Your task to perform on an android device: Open Yahoo.com Image 0: 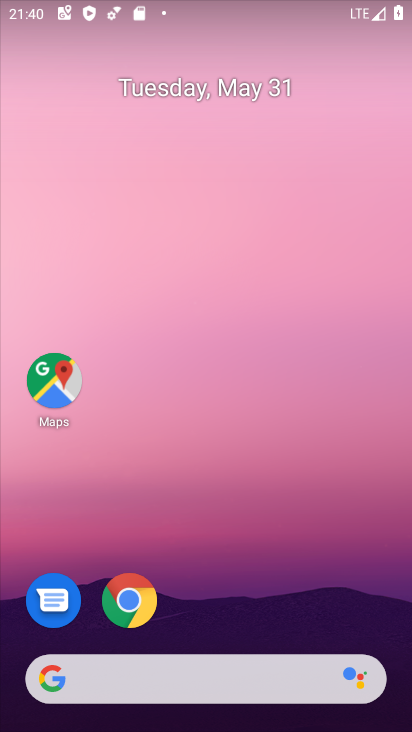
Step 0: click (125, 606)
Your task to perform on an android device: Open Yahoo.com Image 1: 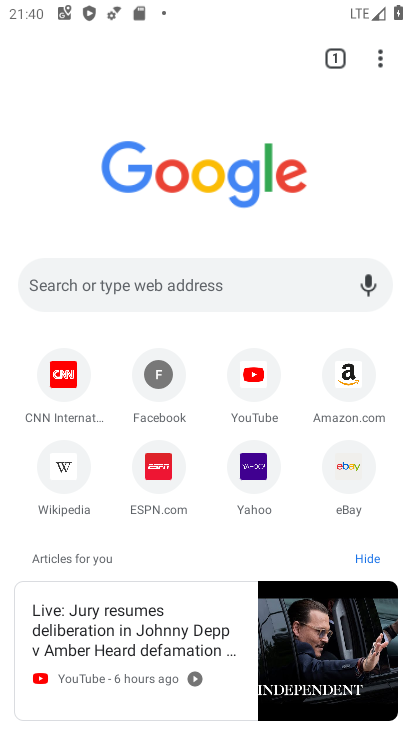
Step 1: click (245, 473)
Your task to perform on an android device: Open Yahoo.com Image 2: 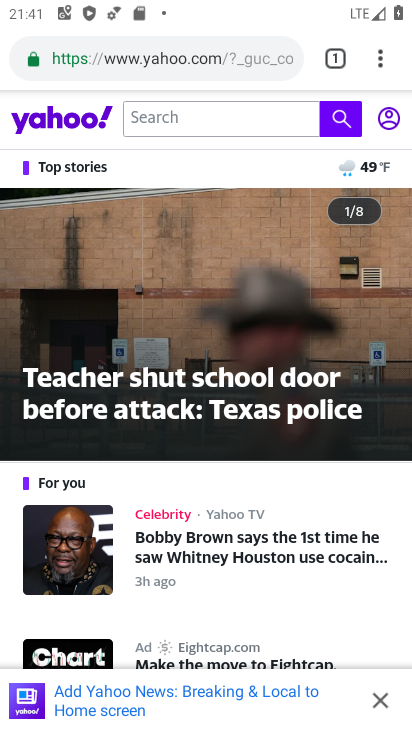
Step 2: task complete